Your task to perform on an android device: Open the clock Image 0: 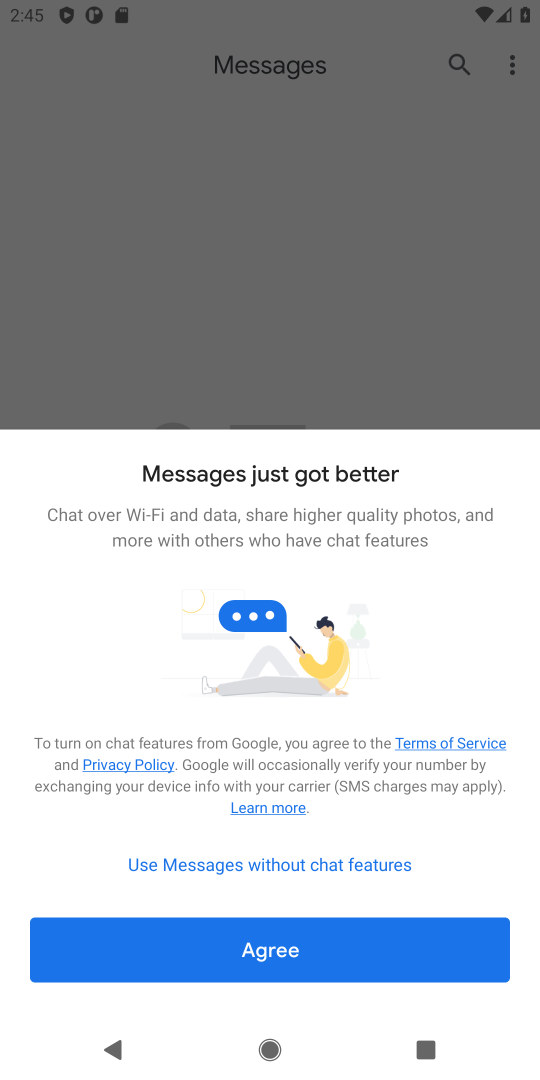
Step 0: press home button
Your task to perform on an android device: Open the clock Image 1: 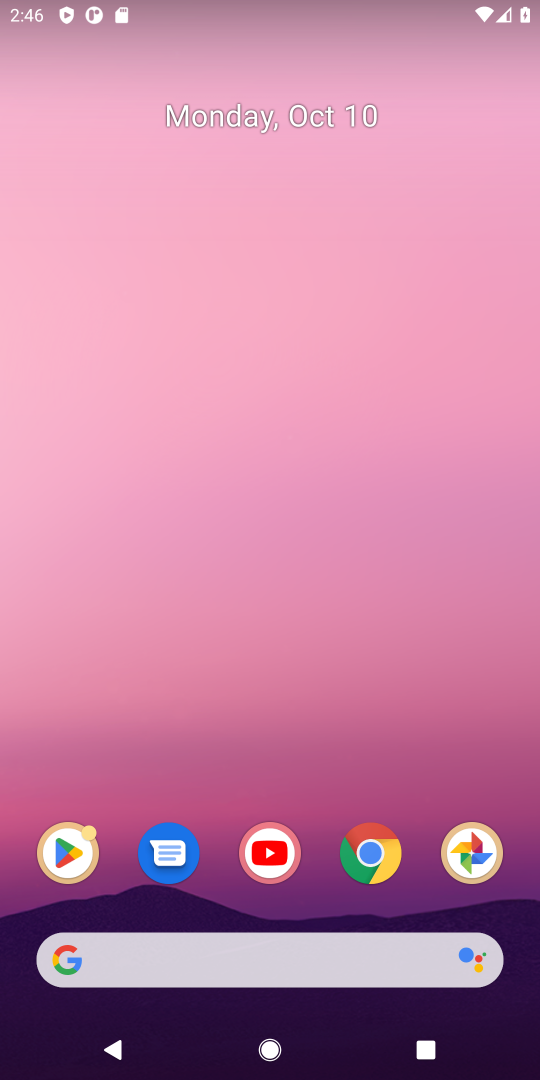
Step 1: click (419, 770)
Your task to perform on an android device: Open the clock Image 2: 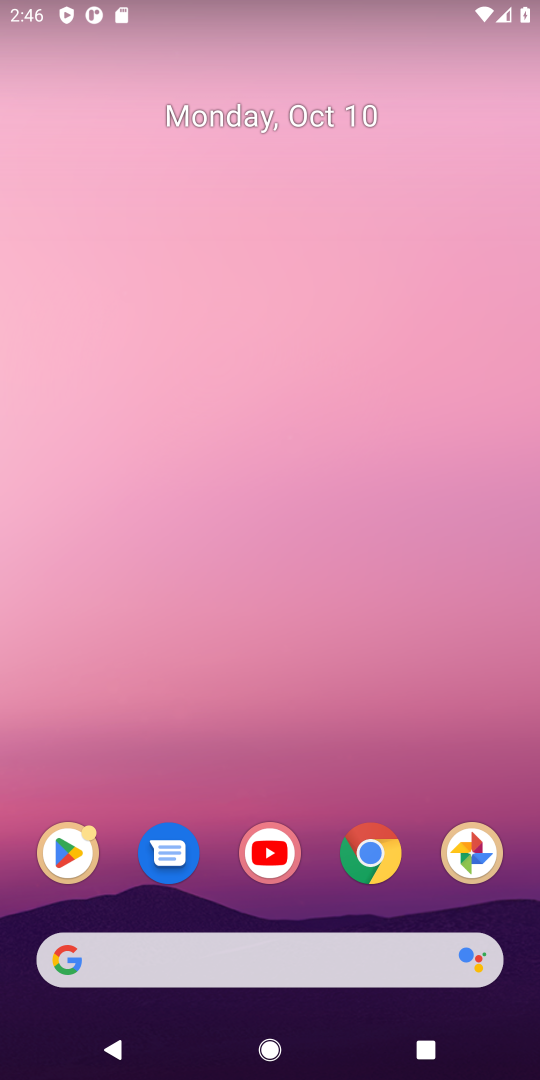
Step 2: drag from (315, 805) to (247, 255)
Your task to perform on an android device: Open the clock Image 3: 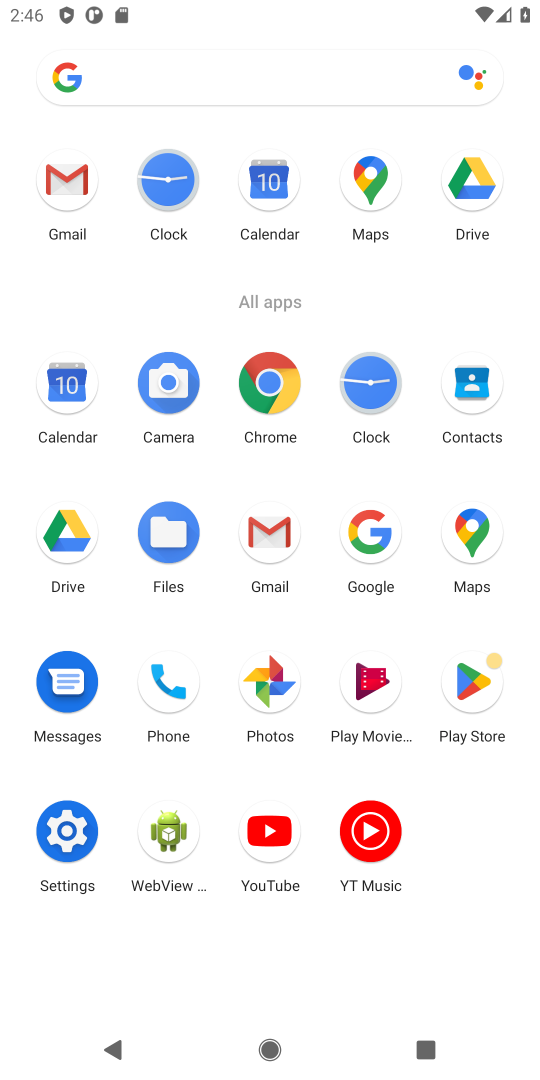
Step 3: click (361, 393)
Your task to perform on an android device: Open the clock Image 4: 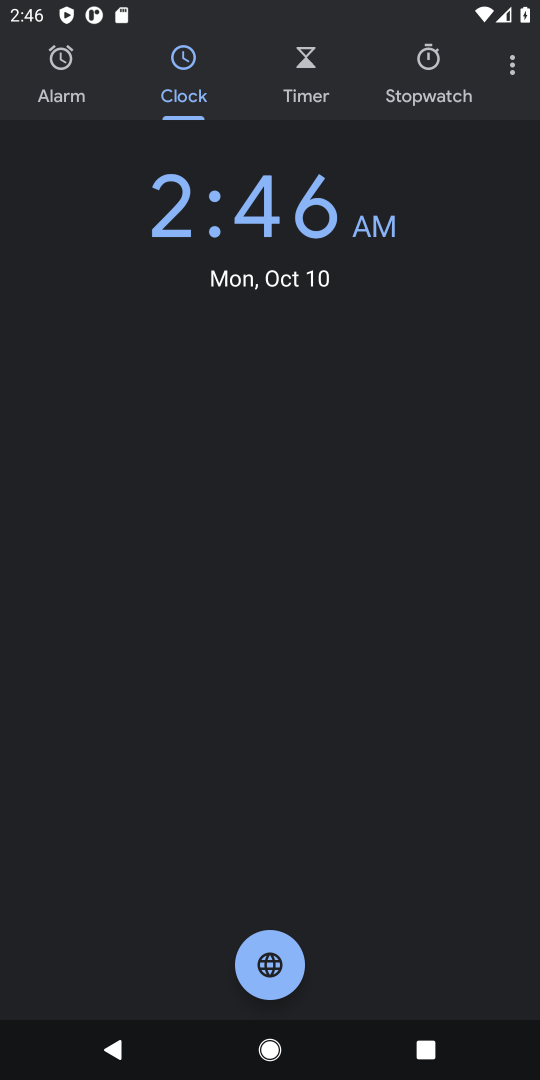
Step 4: task complete